Your task to perform on an android device: Go to eBay Image 0: 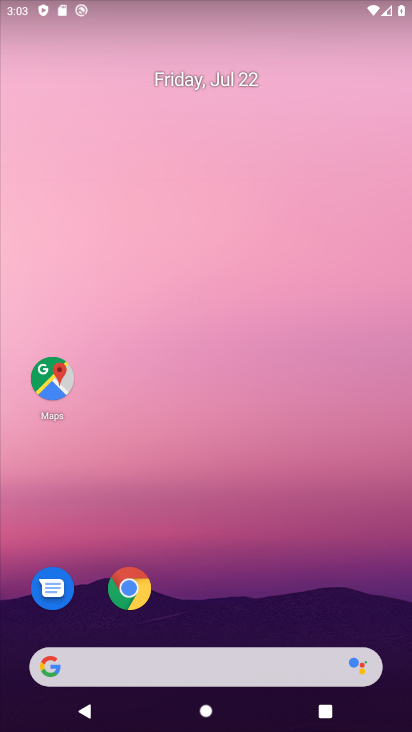
Step 0: drag from (196, 632) to (186, 329)
Your task to perform on an android device: Go to eBay Image 1: 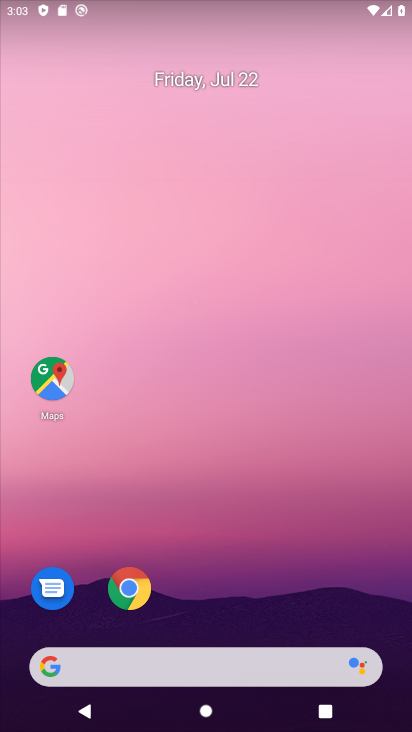
Step 1: drag from (203, 641) to (204, 262)
Your task to perform on an android device: Go to eBay Image 2: 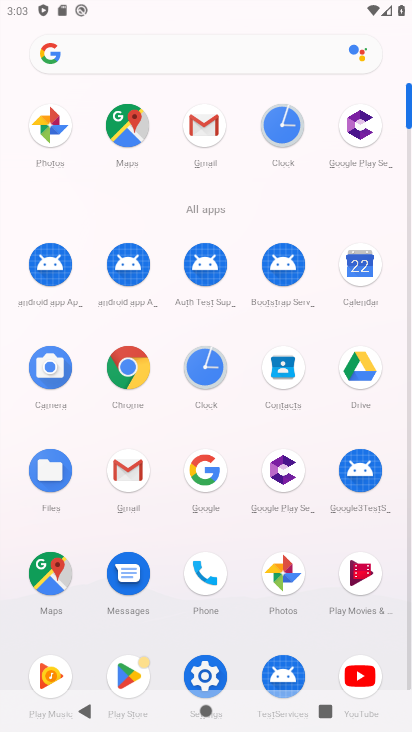
Step 2: click (121, 372)
Your task to perform on an android device: Go to eBay Image 3: 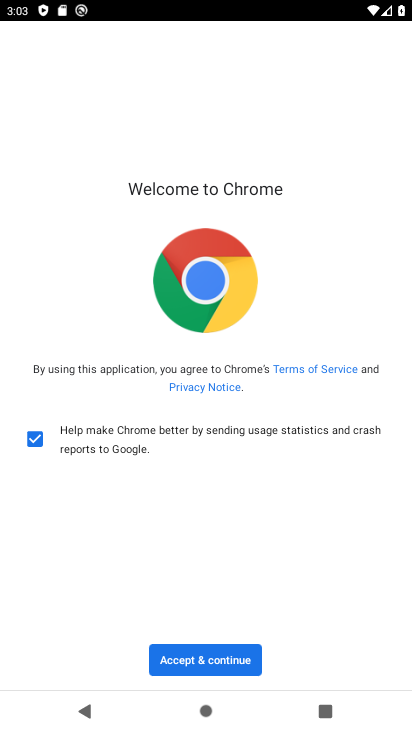
Step 3: click (167, 661)
Your task to perform on an android device: Go to eBay Image 4: 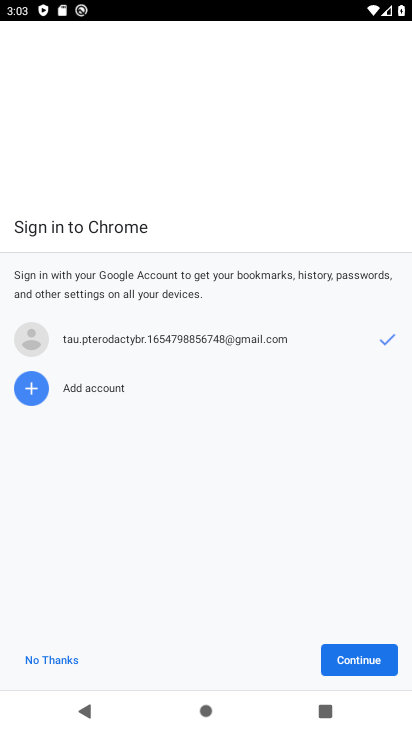
Step 4: click (344, 659)
Your task to perform on an android device: Go to eBay Image 5: 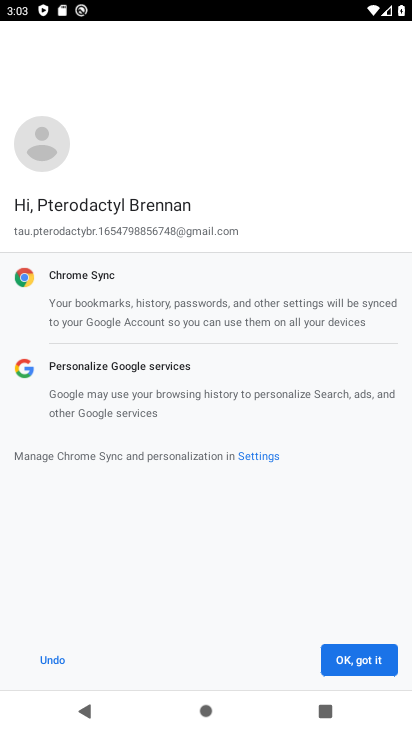
Step 5: click (344, 659)
Your task to perform on an android device: Go to eBay Image 6: 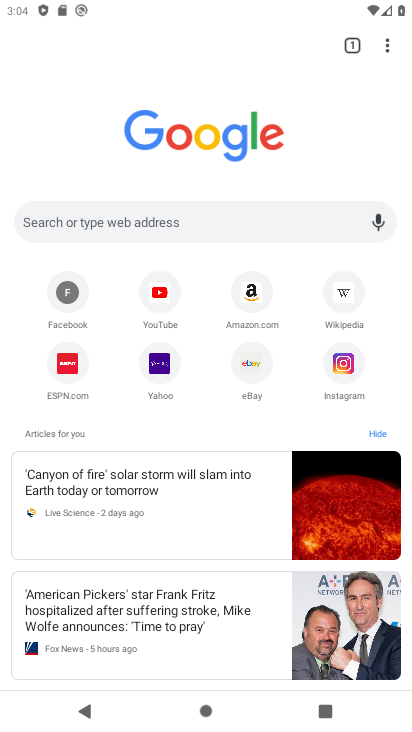
Step 6: click (244, 362)
Your task to perform on an android device: Go to eBay Image 7: 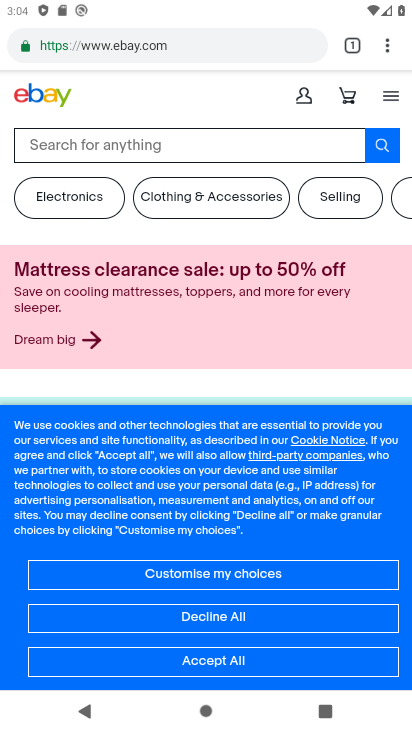
Step 7: task complete